Your task to perform on an android device: toggle pop-ups in chrome Image 0: 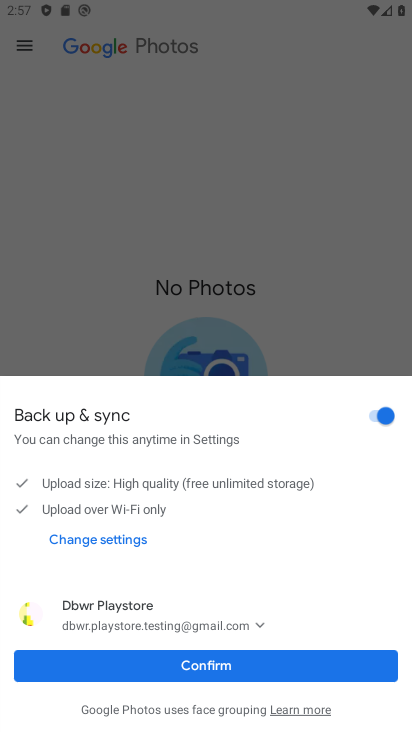
Step 0: press home button
Your task to perform on an android device: toggle pop-ups in chrome Image 1: 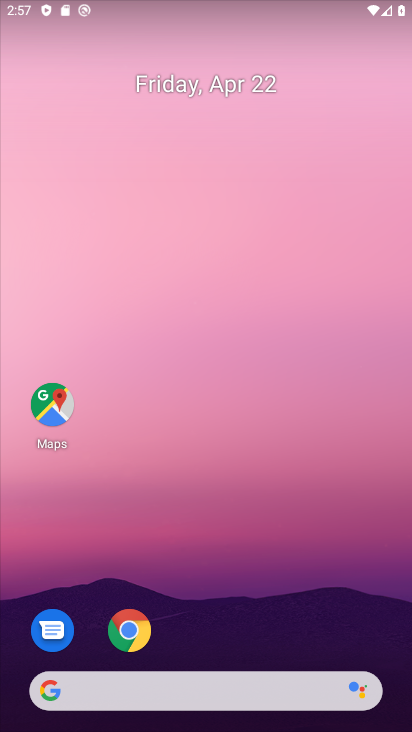
Step 1: drag from (229, 523) to (278, 172)
Your task to perform on an android device: toggle pop-ups in chrome Image 2: 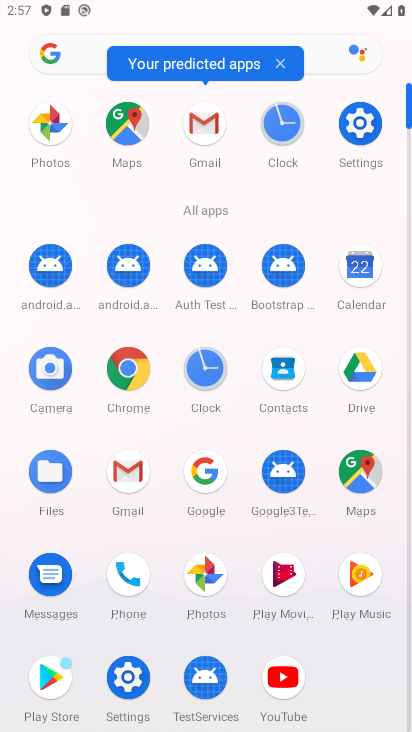
Step 2: click (126, 370)
Your task to perform on an android device: toggle pop-ups in chrome Image 3: 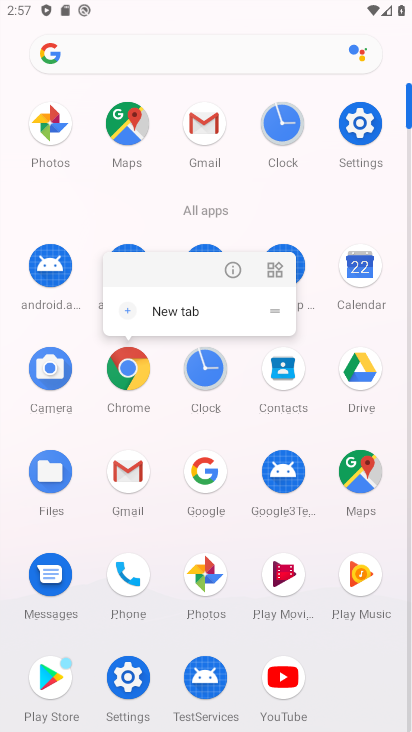
Step 3: click (137, 356)
Your task to perform on an android device: toggle pop-ups in chrome Image 4: 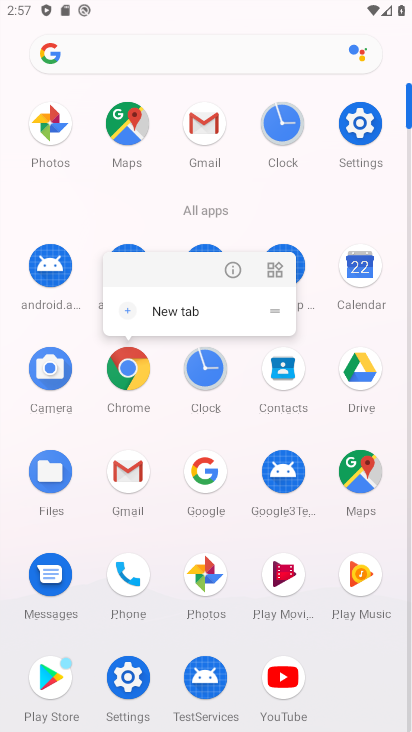
Step 4: click (127, 372)
Your task to perform on an android device: toggle pop-ups in chrome Image 5: 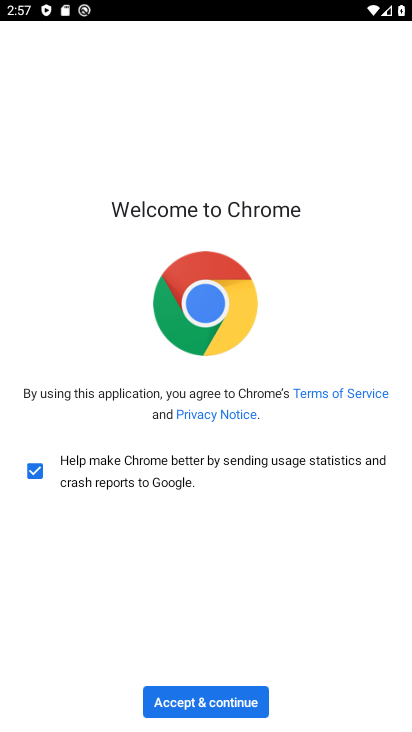
Step 5: click (202, 703)
Your task to perform on an android device: toggle pop-ups in chrome Image 6: 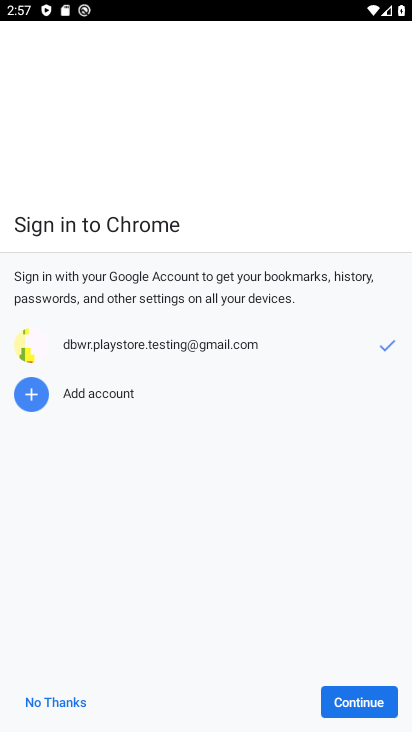
Step 6: click (342, 700)
Your task to perform on an android device: toggle pop-ups in chrome Image 7: 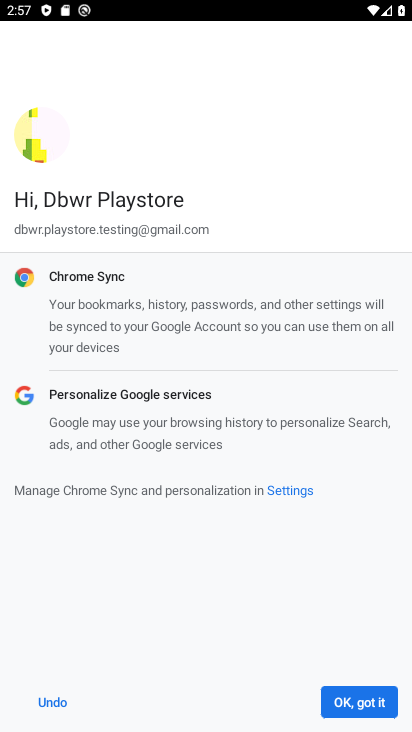
Step 7: click (336, 702)
Your task to perform on an android device: toggle pop-ups in chrome Image 8: 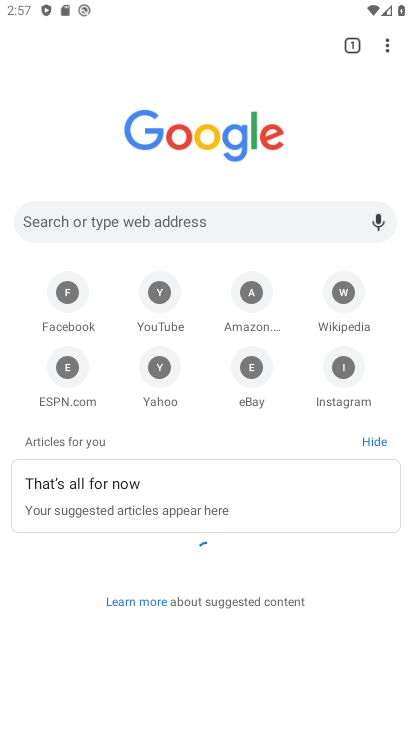
Step 8: click (388, 43)
Your task to perform on an android device: toggle pop-ups in chrome Image 9: 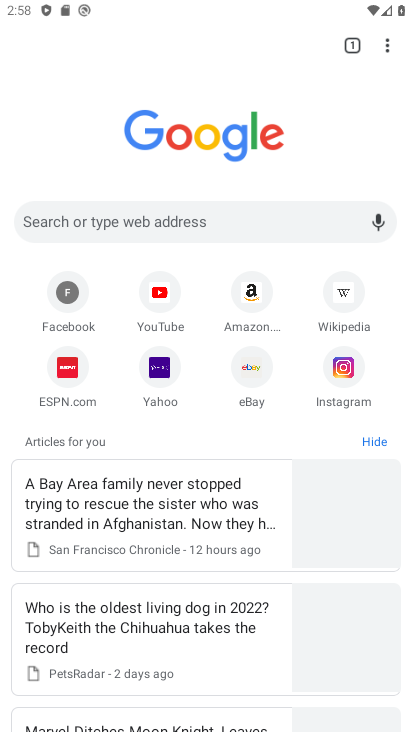
Step 9: click (390, 52)
Your task to perform on an android device: toggle pop-ups in chrome Image 10: 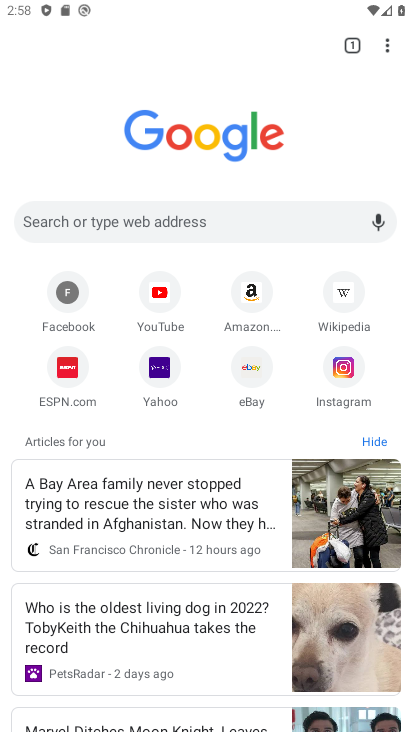
Step 10: click (387, 36)
Your task to perform on an android device: toggle pop-ups in chrome Image 11: 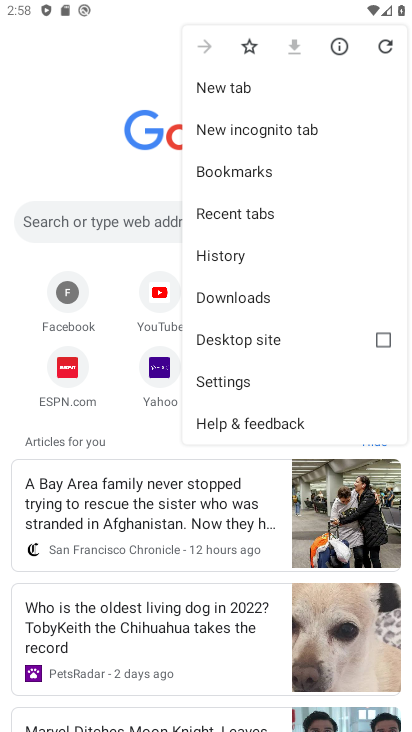
Step 11: click (227, 380)
Your task to perform on an android device: toggle pop-ups in chrome Image 12: 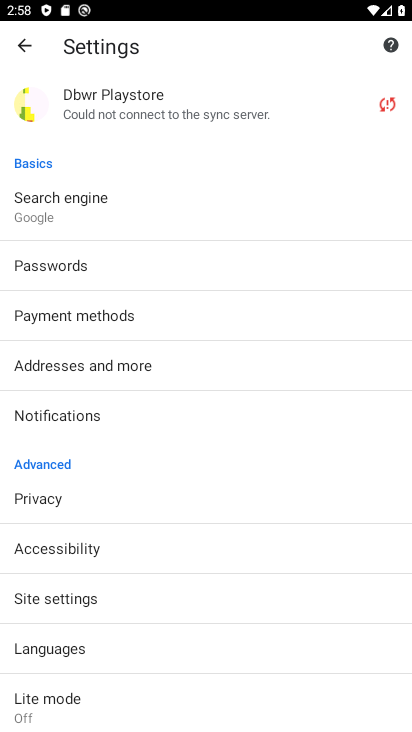
Step 12: drag from (63, 657) to (77, 569)
Your task to perform on an android device: toggle pop-ups in chrome Image 13: 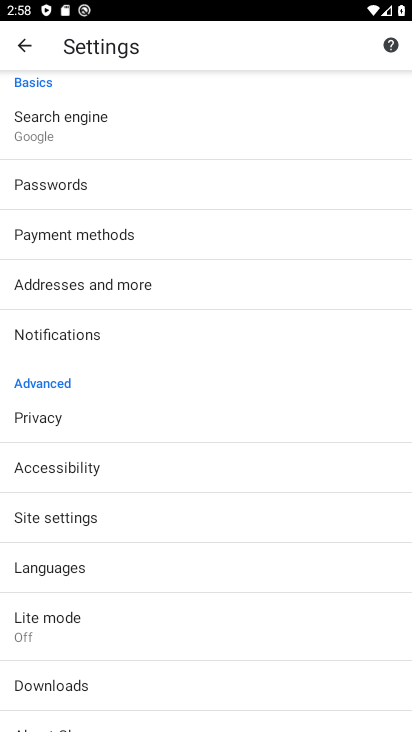
Step 13: click (57, 514)
Your task to perform on an android device: toggle pop-ups in chrome Image 14: 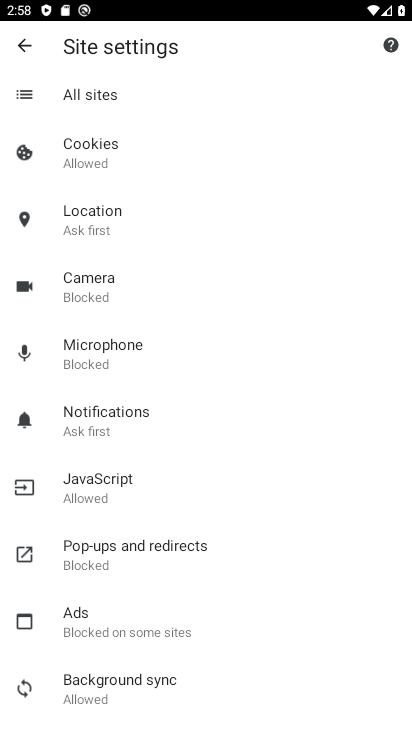
Step 14: click (134, 565)
Your task to perform on an android device: toggle pop-ups in chrome Image 15: 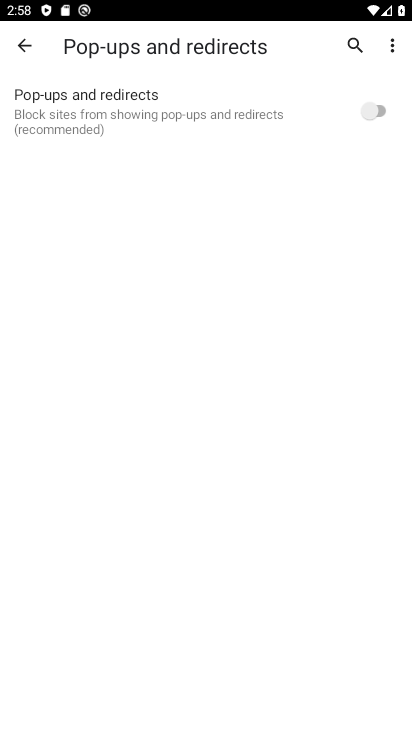
Step 15: click (382, 111)
Your task to perform on an android device: toggle pop-ups in chrome Image 16: 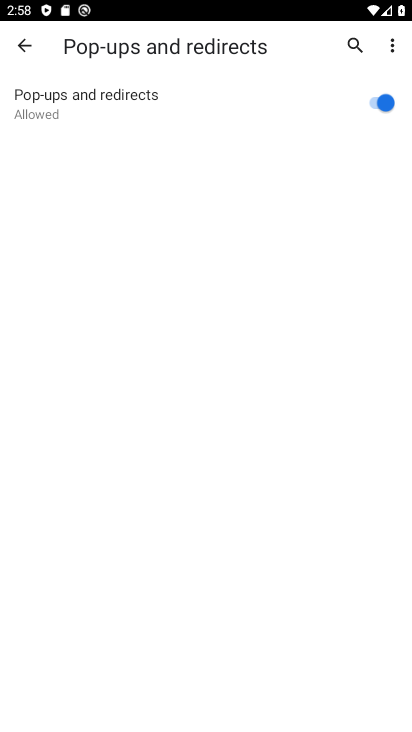
Step 16: task complete